Your task to perform on an android device: What is the recent news? Image 0: 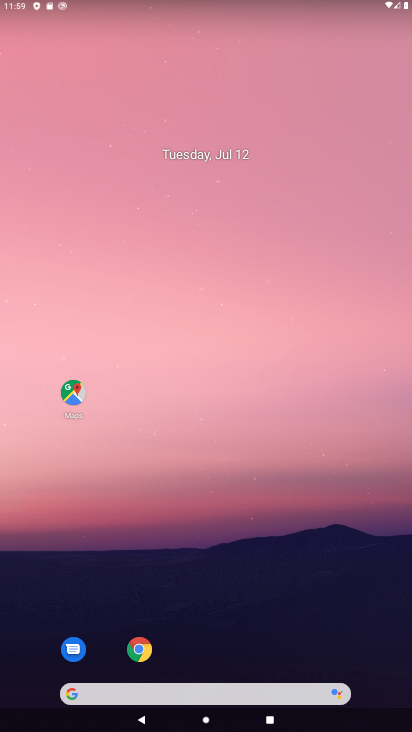
Step 0: drag from (6, 248) to (285, 322)
Your task to perform on an android device: What is the recent news? Image 1: 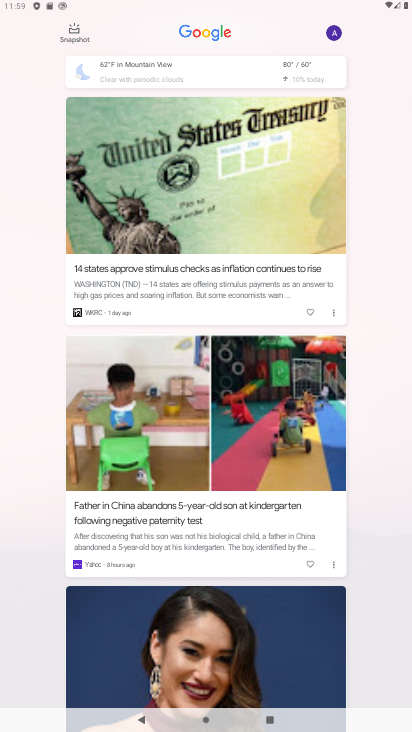
Step 1: task complete